Your task to perform on an android device: Go to Wikipedia Image 0: 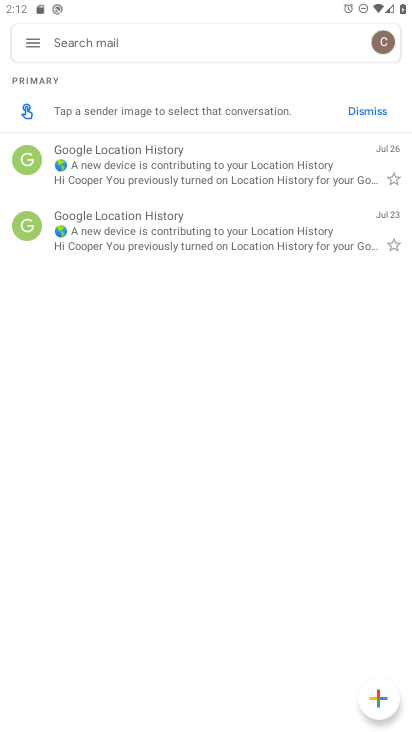
Step 0: drag from (260, 519) to (299, 206)
Your task to perform on an android device: Go to Wikipedia Image 1: 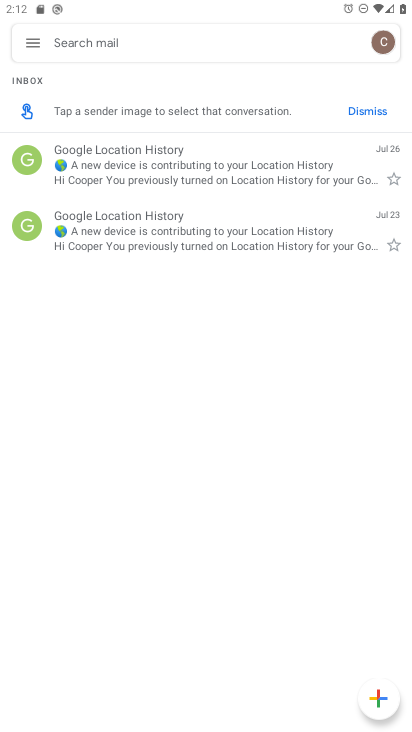
Step 1: drag from (272, 292) to (265, 45)
Your task to perform on an android device: Go to Wikipedia Image 2: 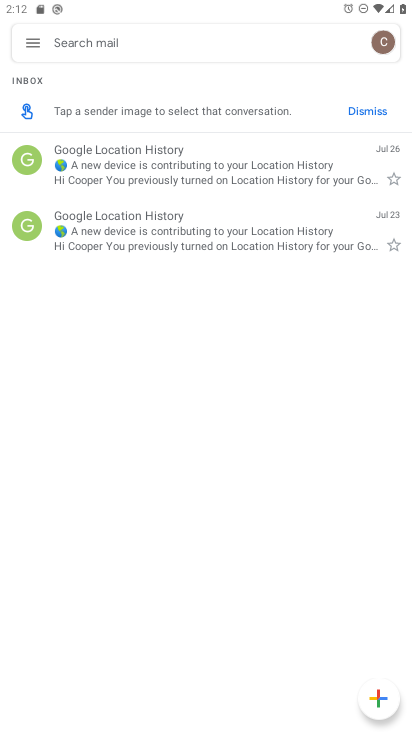
Step 2: drag from (192, 241) to (241, 564)
Your task to perform on an android device: Go to Wikipedia Image 3: 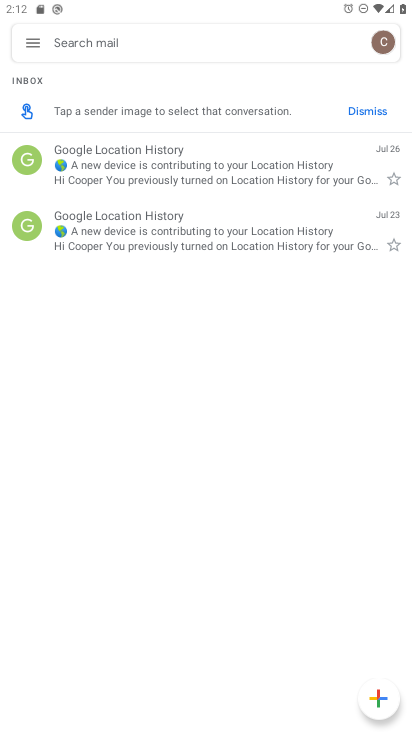
Step 3: drag from (223, 544) to (209, 190)
Your task to perform on an android device: Go to Wikipedia Image 4: 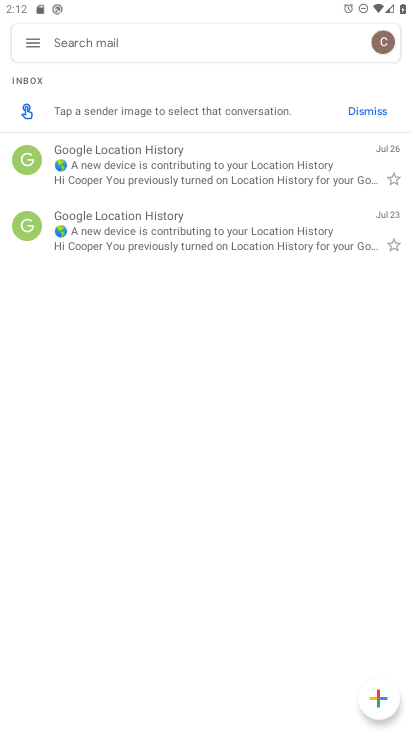
Step 4: drag from (30, 144) to (157, 513)
Your task to perform on an android device: Go to Wikipedia Image 5: 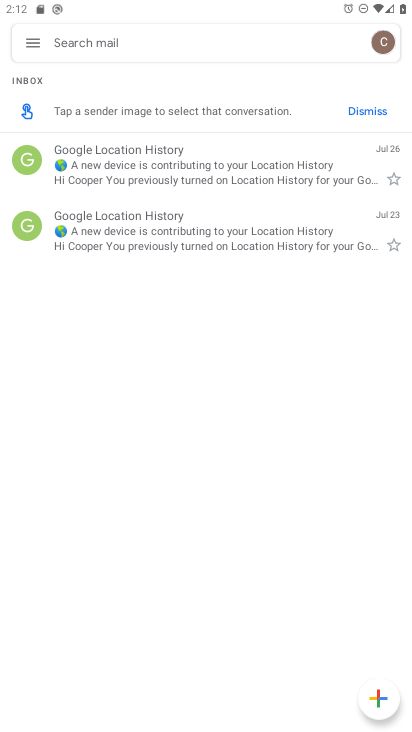
Step 5: press home button
Your task to perform on an android device: Go to Wikipedia Image 6: 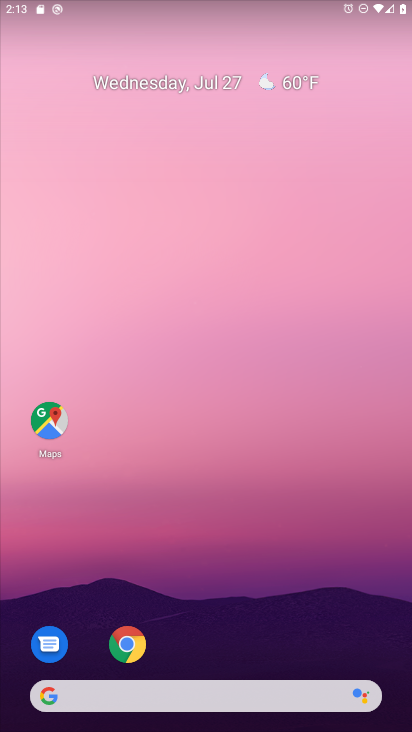
Step 6: drag from (198, 620) to (274, 126)
Your task to perform on an android device: Go to Wikipedia Image 7: 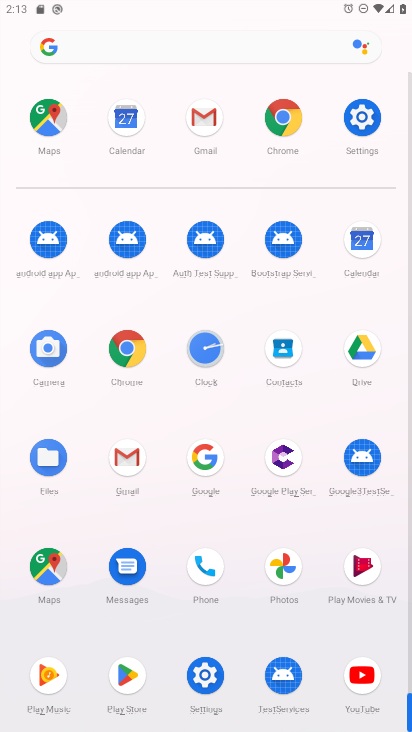
Step 7: click (201, 49)
Your task to perform on an android device: Go to Wikipedia Image 8: 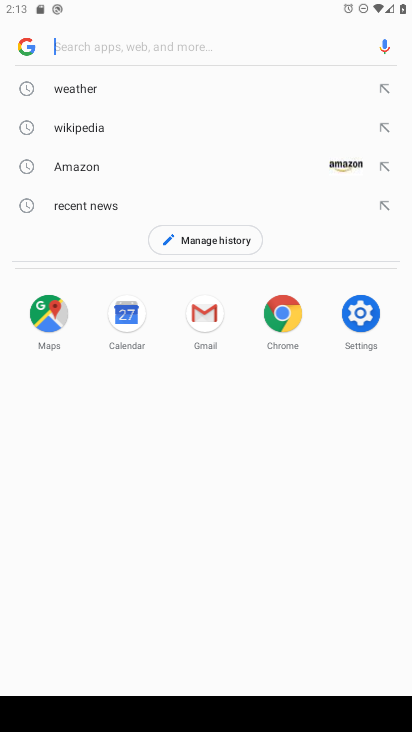
Step 8: click (98, 129)
Your task to perform on an android device: Go to Wikipedia Image 9: 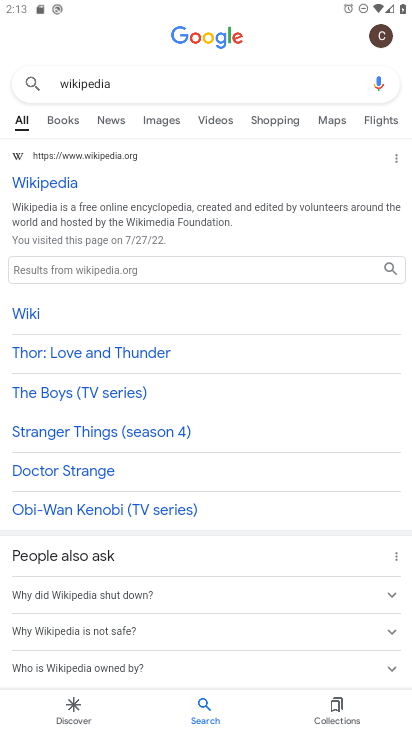
Step 9: click (44, 178)
Your task to perform on an android device: Go to Wikipedia Image 10: 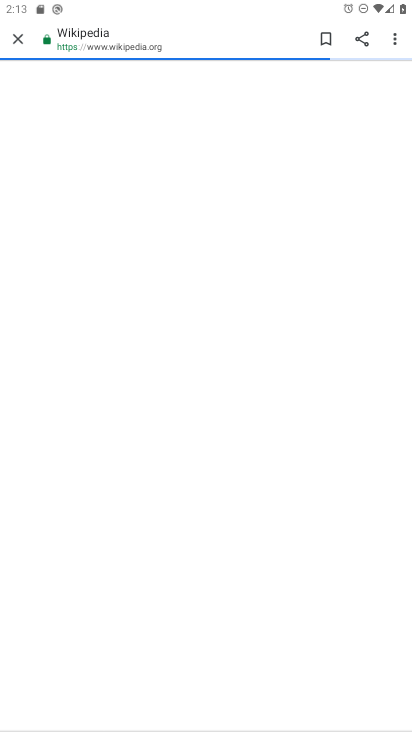
Step 10: task complete